Your task to perform on an android device: turn on airplane mode Image 0: 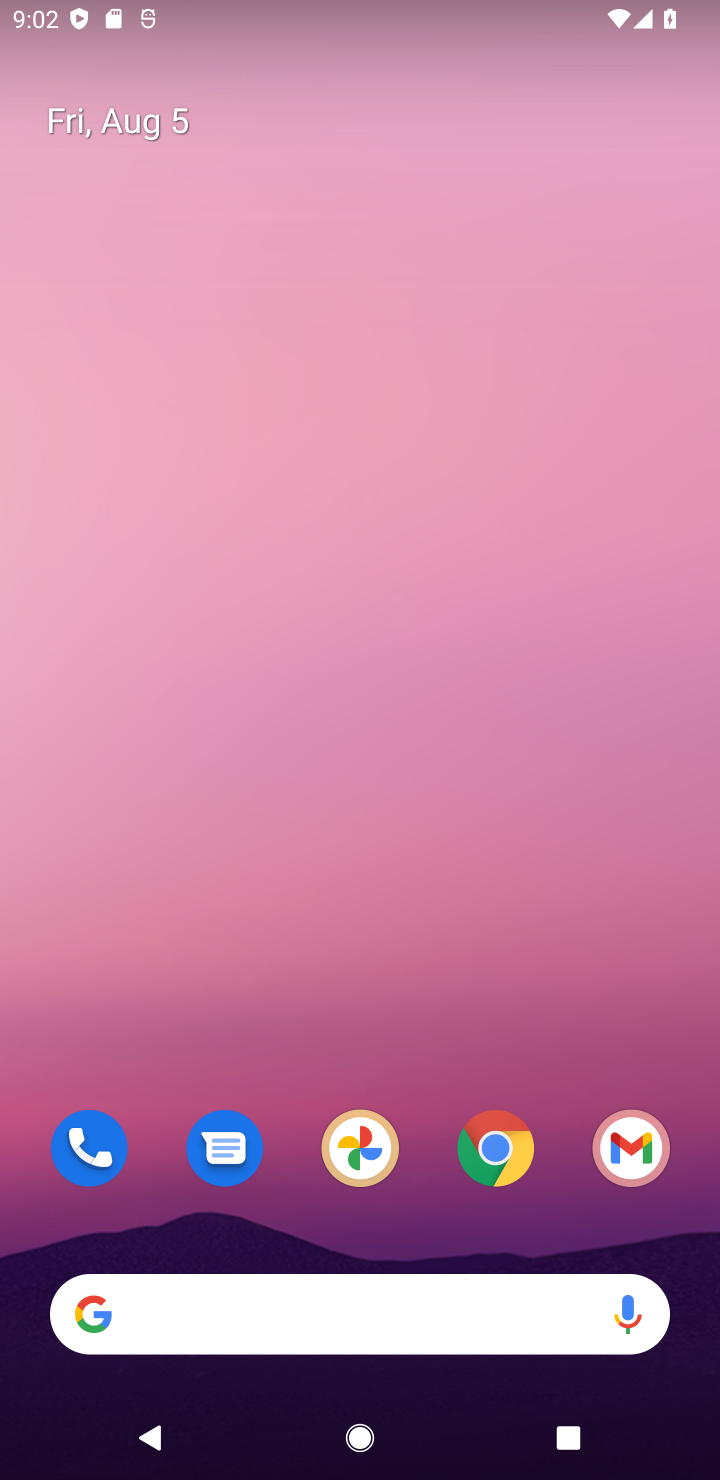
Step 0: drag from (289, 1245) to (285, 248)
Your task to perform on an android device: turn on airplane mode Image 1: 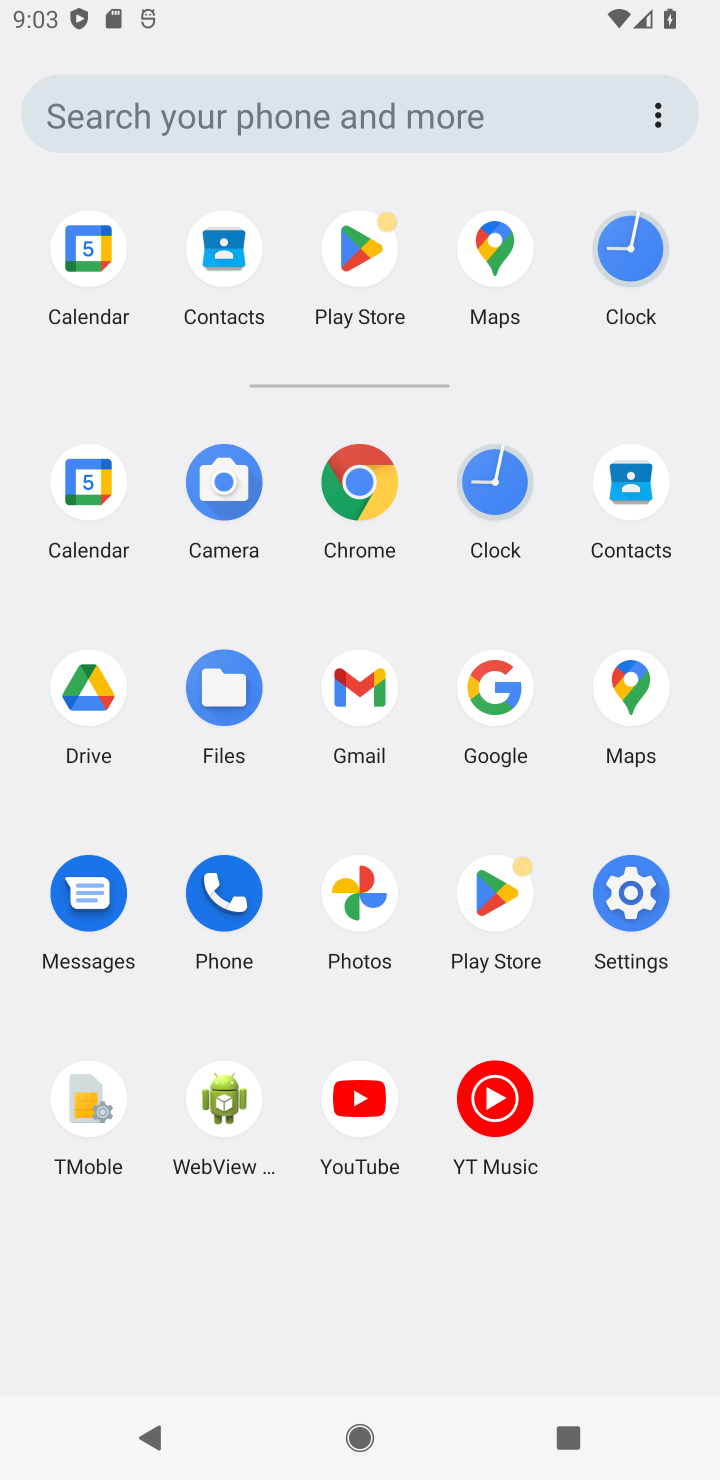
Step 1: click (628, 931)
Your task to perform on an android device: turn on airplane mode Image 2: 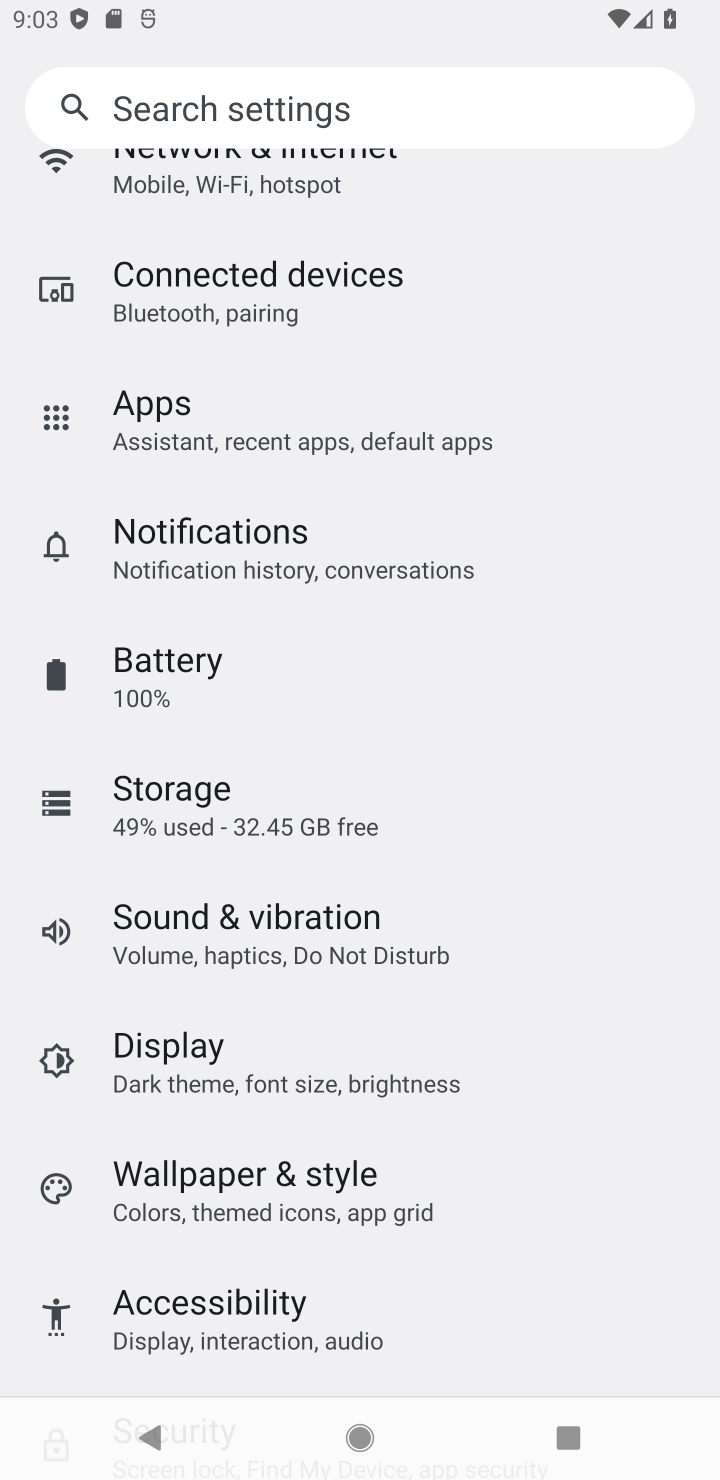
Step 2: drag from (299, 429) to (391, 1217)
Your task to perform on an android device: turn on airplane mode Image 3: 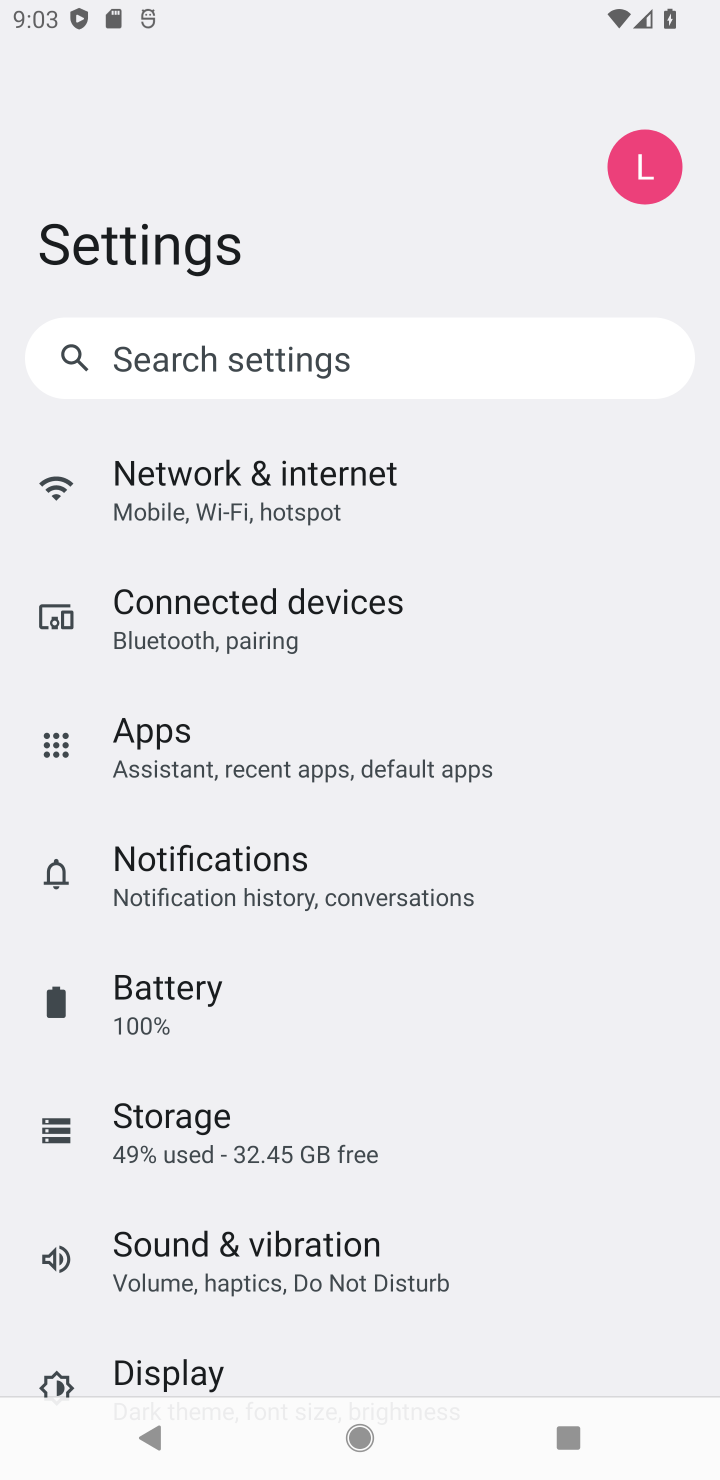
Step 3: click (341, 418)
Your task to perform on an android device: turn on airplane mode Image 4: 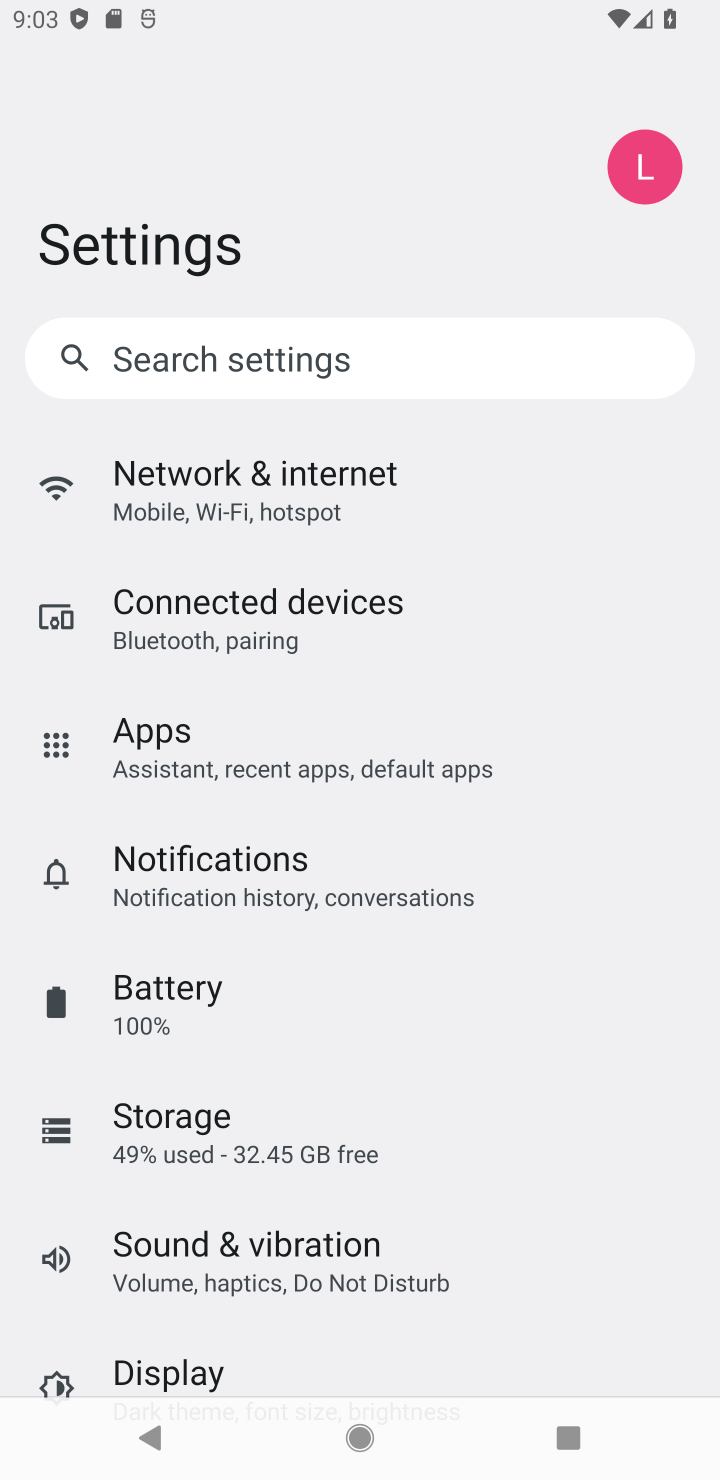
Step 4: click (349, 485)
Your task to perform on an android device: turn on airplane mode Image 5: 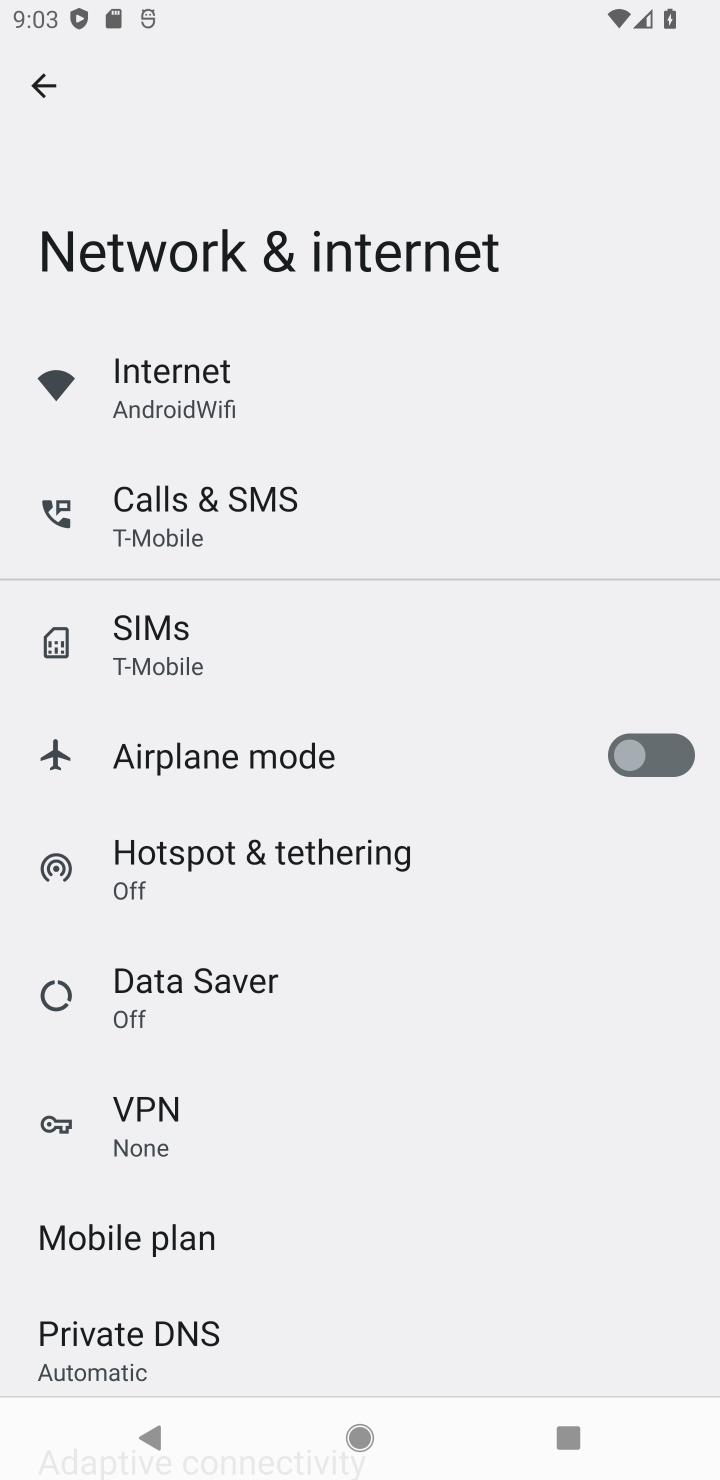
Step 5: click (576, 745)
Your task to perform on an android device: turn on airplane mode Image 6: 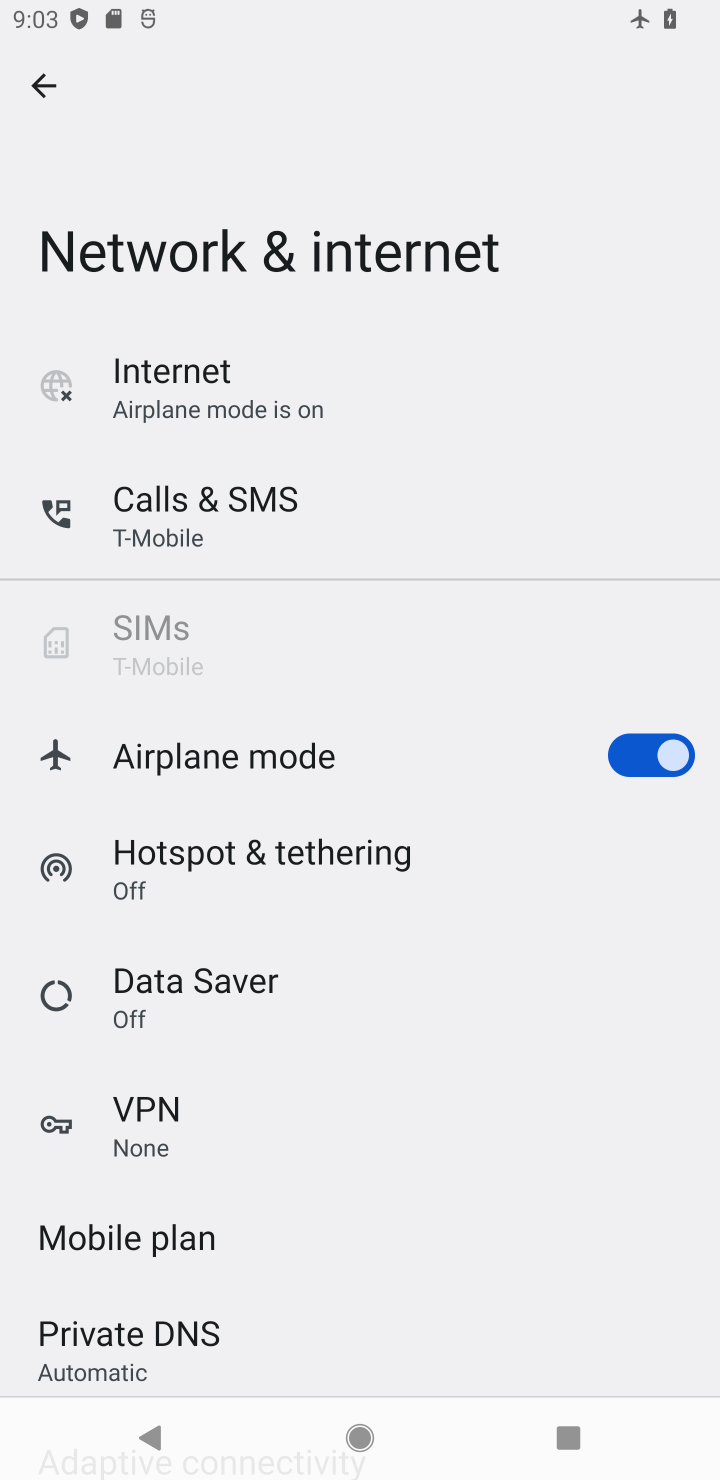
Step 6: click (265, 366)
Your task to perform on an android device: turn on airplane mode Image 7: 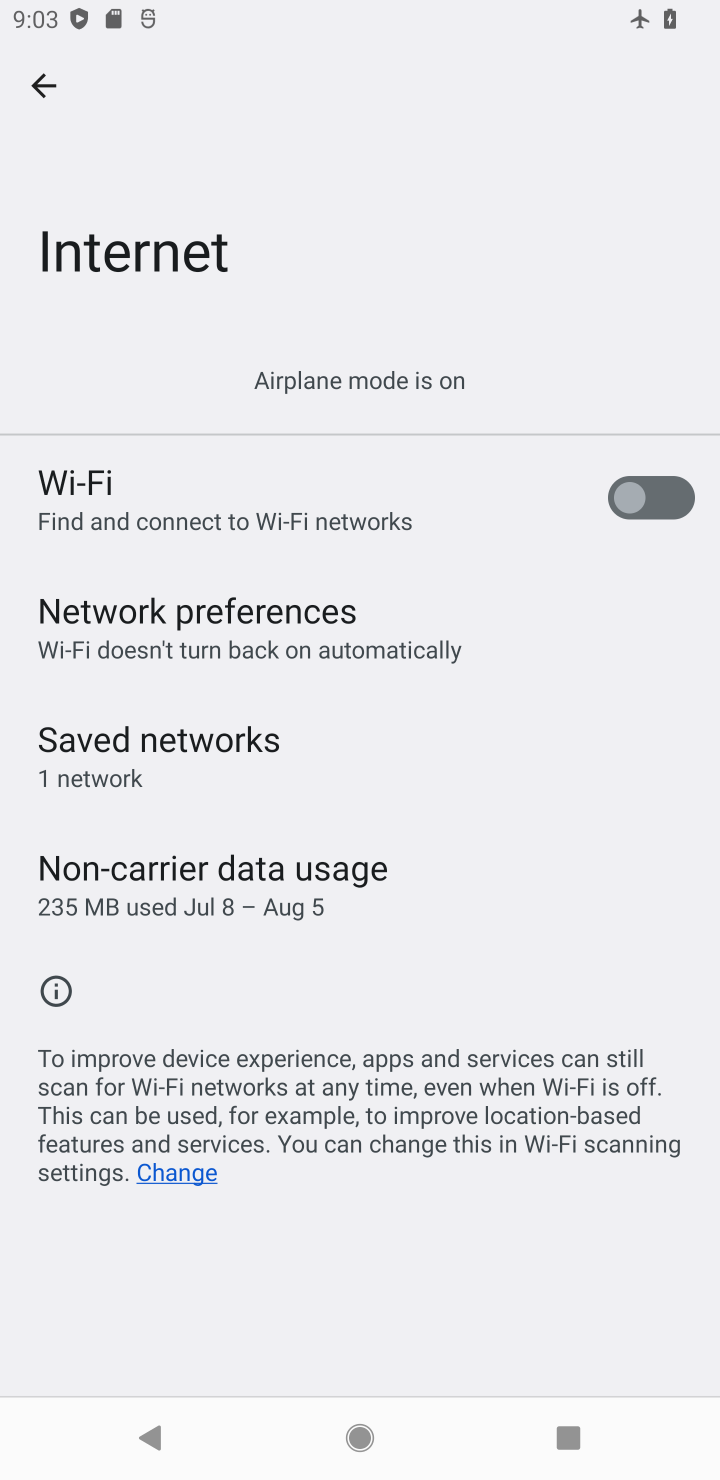
Step 7: click (636, 462)
Your task to perform on an android device: turn on airplane mode Image 8: 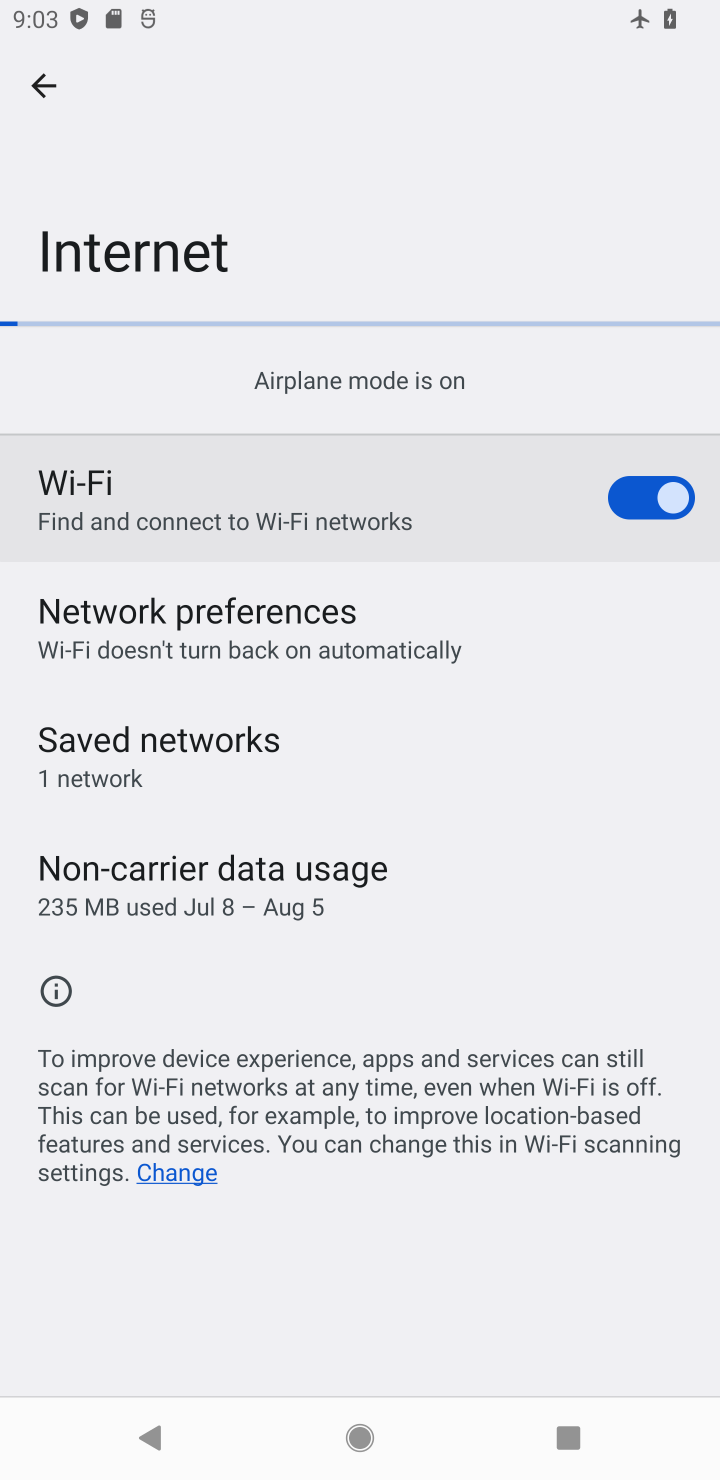
Step 8: task complete